Your task to perform on an android device: Search for vegetarian restaurants on Maps Image 0: 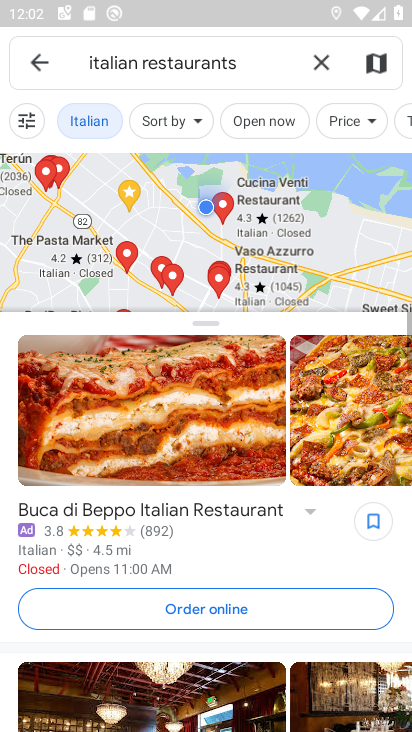
Step 0: press home button
Your task to perform on an android device: Search for vegetarian restaurants on Maps Image 1: 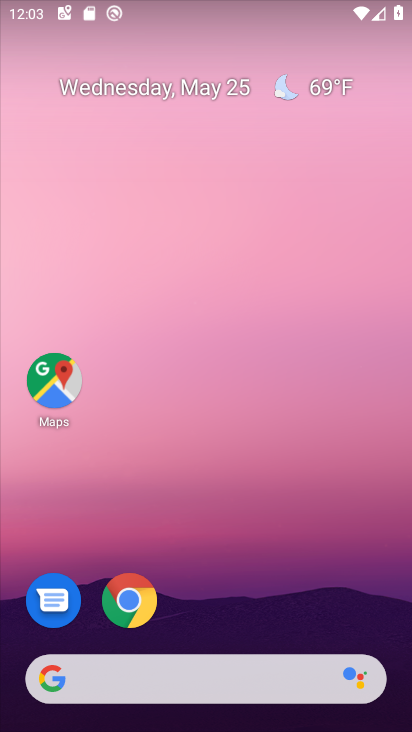
Step 1: drag from (372, 468) to (386, 178)
Your task to perform on an android device: Search for vegetarian restaurants on Maps Image 2: 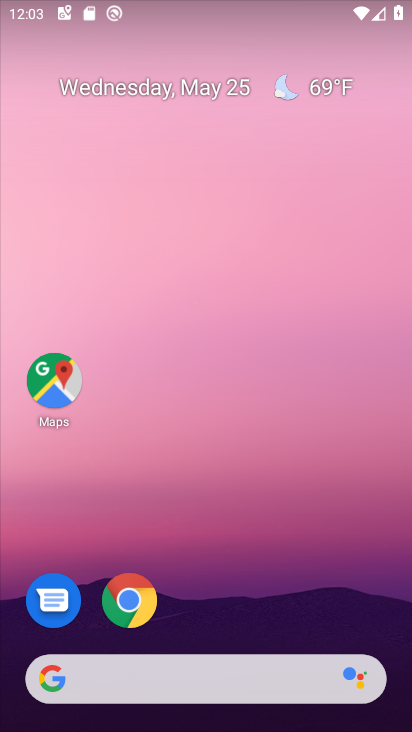
Step 2: drag from (393, 621) to (386, 172)
Your task to perform on an android device: Search for vegetarian restaurants on Maps Image 3: 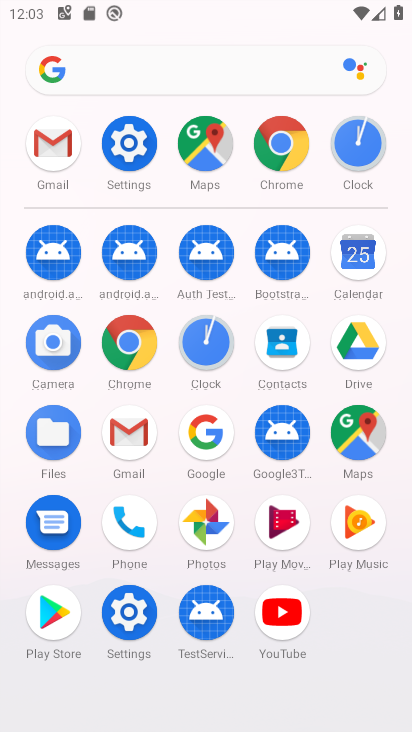
Step 3: click (369, 440)
Your task to perform on an android device: Search for vegetarian restaurants on Maps Image 4: 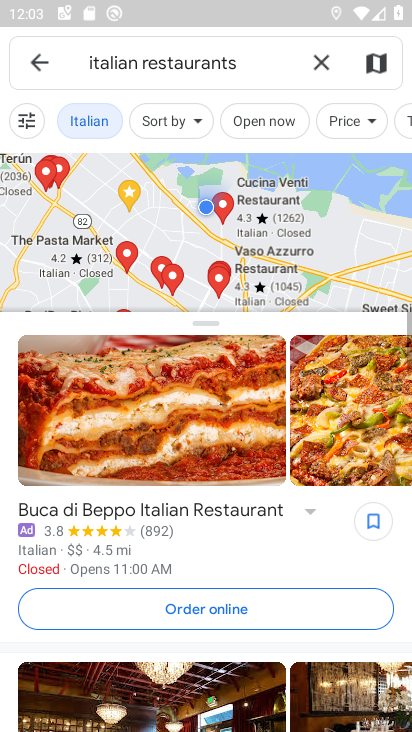
Step 4: click (311, 58)
Your task to perform on an android device: Search for vegetarian restaurants on Maps Image 5: 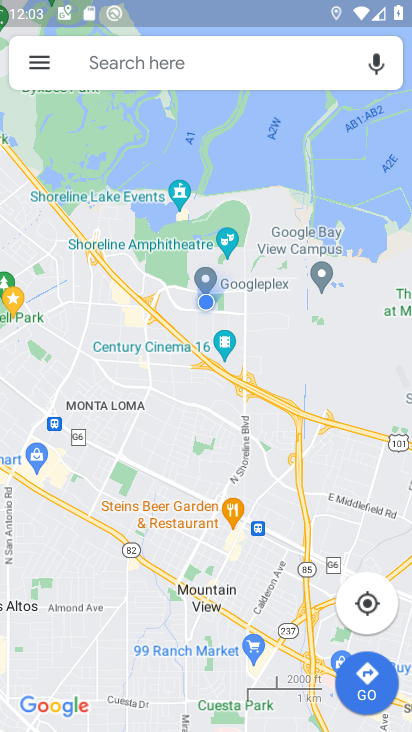
Step 5: click (210, 68)
Your task to perform on an android device: Search for vegetarian restaurants on Maps Image 6: 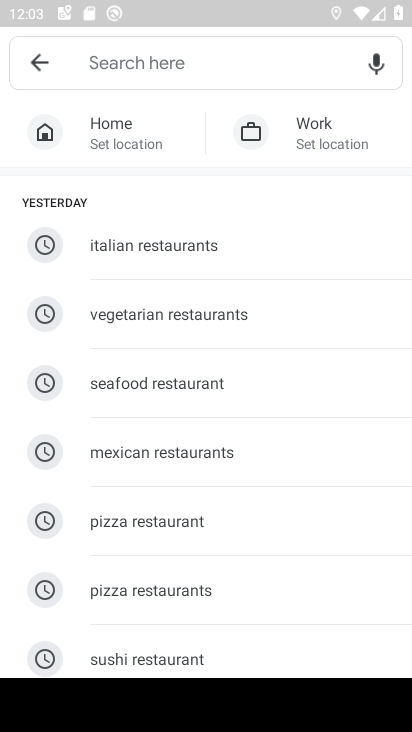
Step 6: type "vegetrain restaurants"
Your task to perform on an android device: Search for vegetarian restaurants on Maps Image 7: 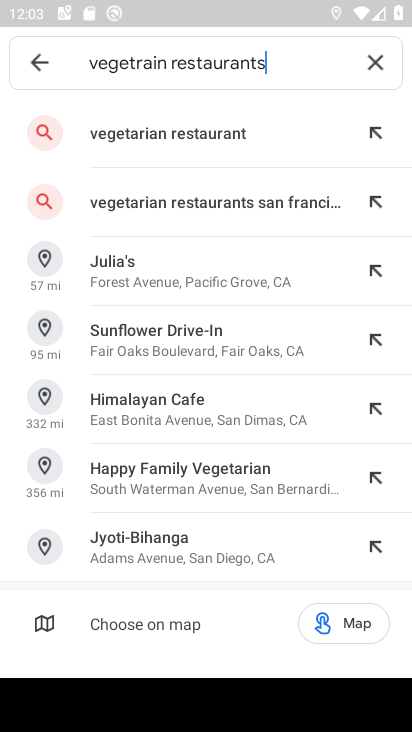
Step 7: click (234, 142)
Your task to perform on an android device: Search for vegetarian restaurants on Maps Image 8: 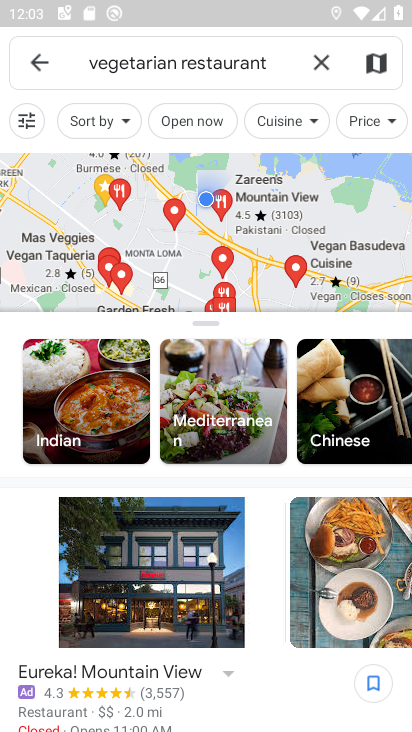
Step 8: task complete